Your task to perform on an android device: add a label to a message in the gmail app Image 0: 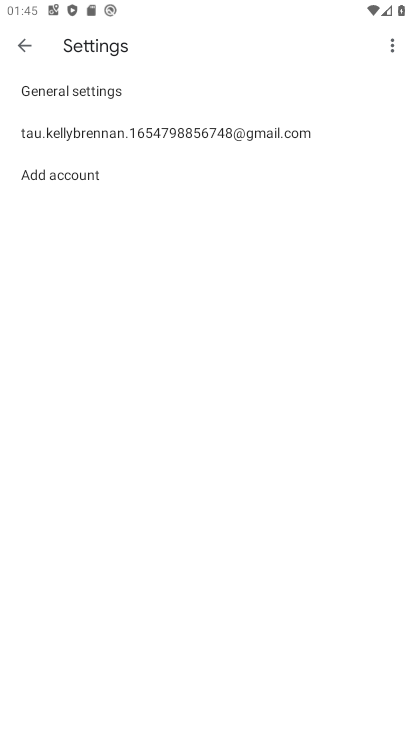
Step 0: press home button
Your task to perform on an android device: add a label to a message in the gmail app Image 1: 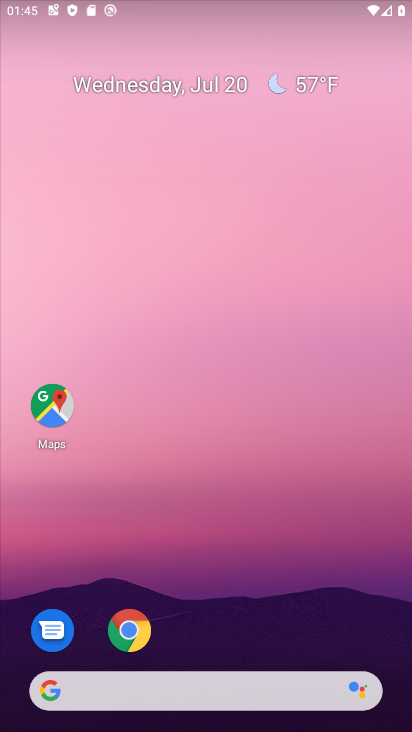
Step 1: drag from (260, 610) to (260, 155)
Your task to perform on an android device: add a label to a message in the gmail app Image 2: 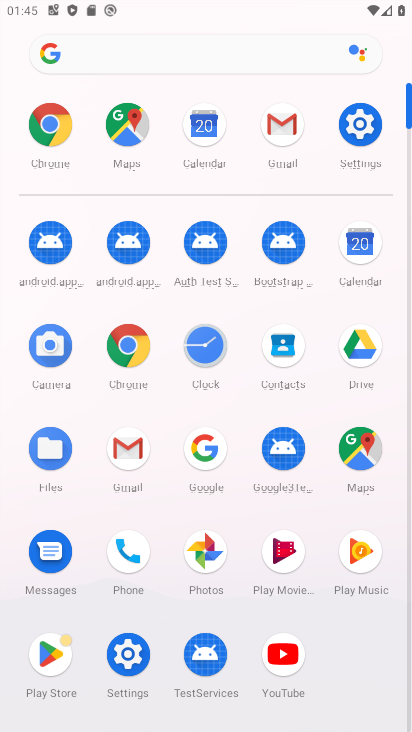
Step 2: click (279, 127)
Your task to perform on an android device: add a label to a message in the gmail app Image 3: 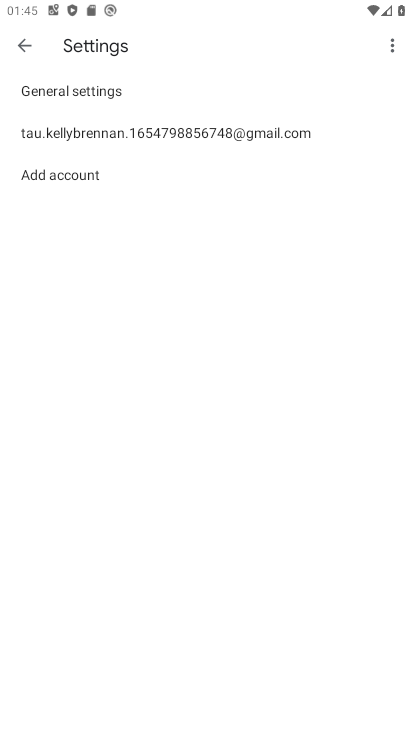
Step 3: click (39, 63)
Your task to perform on an android device: add a label to a message in the gmail app Image 4: 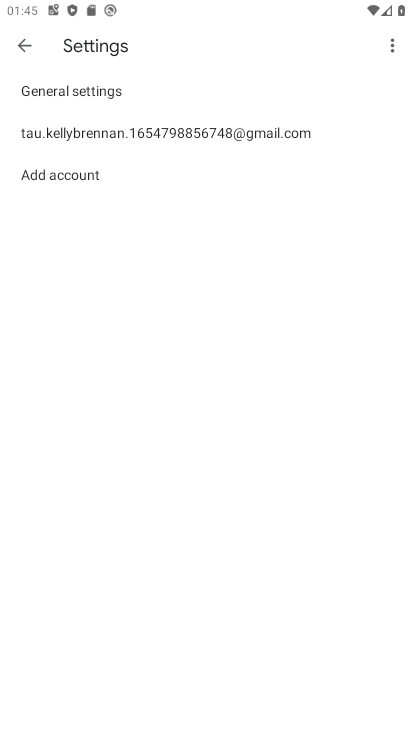
Step 4: click (30, 47)
Your task to perform on an android device: add a label to a message in the gmail app Image 5: 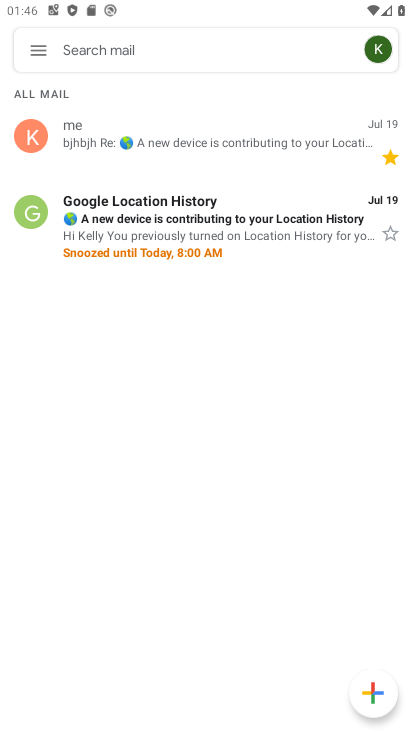
Step 5: click (31, 47)
Your task to perform on an android device: add a label to a message in the gmail app Image 6: 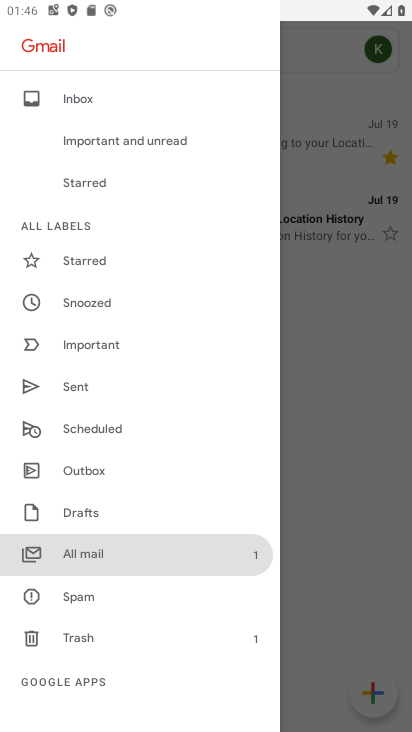
Step 6: click (335, 288)
Your task to perform on an android device: add a label to a message in the gmail app Image 7: 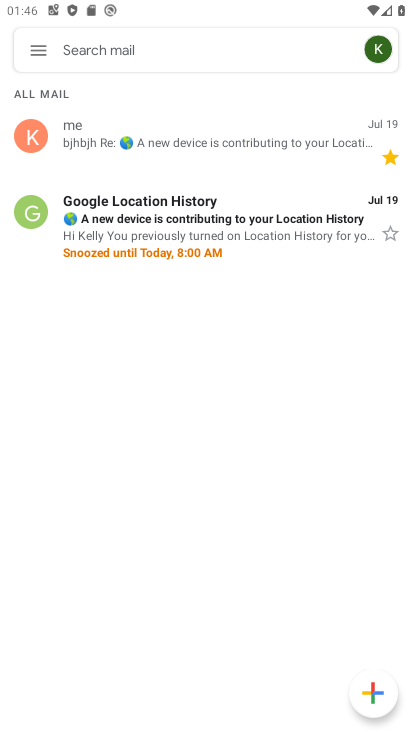
Step 7: click (303, 229)
Your task to perform on an android device: add a label to a message in the gmail app Image 8: 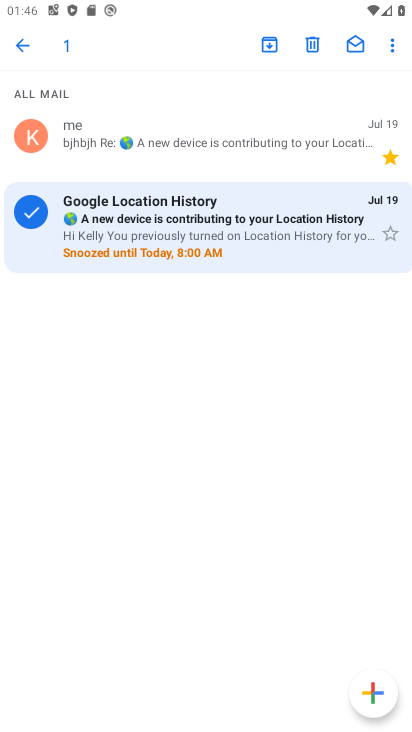
Step 8: click (388, 43)
Your task to perform on an android device: add a label to a message in the gmail app Image 9: 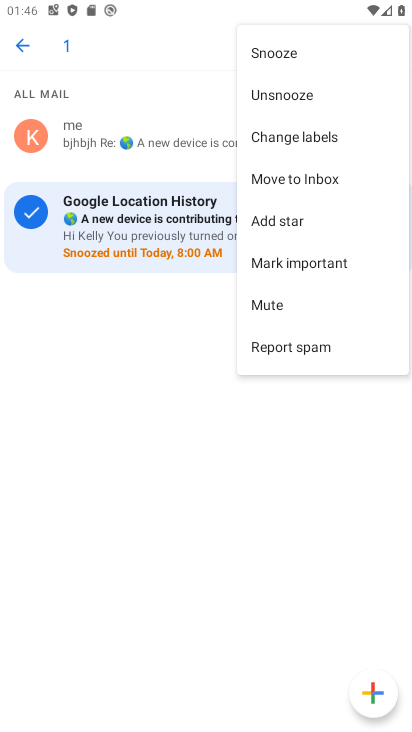
Step 9: task complete